Your task to perform on an android device: Search for seafood restaurants on Google Maps Image 0: 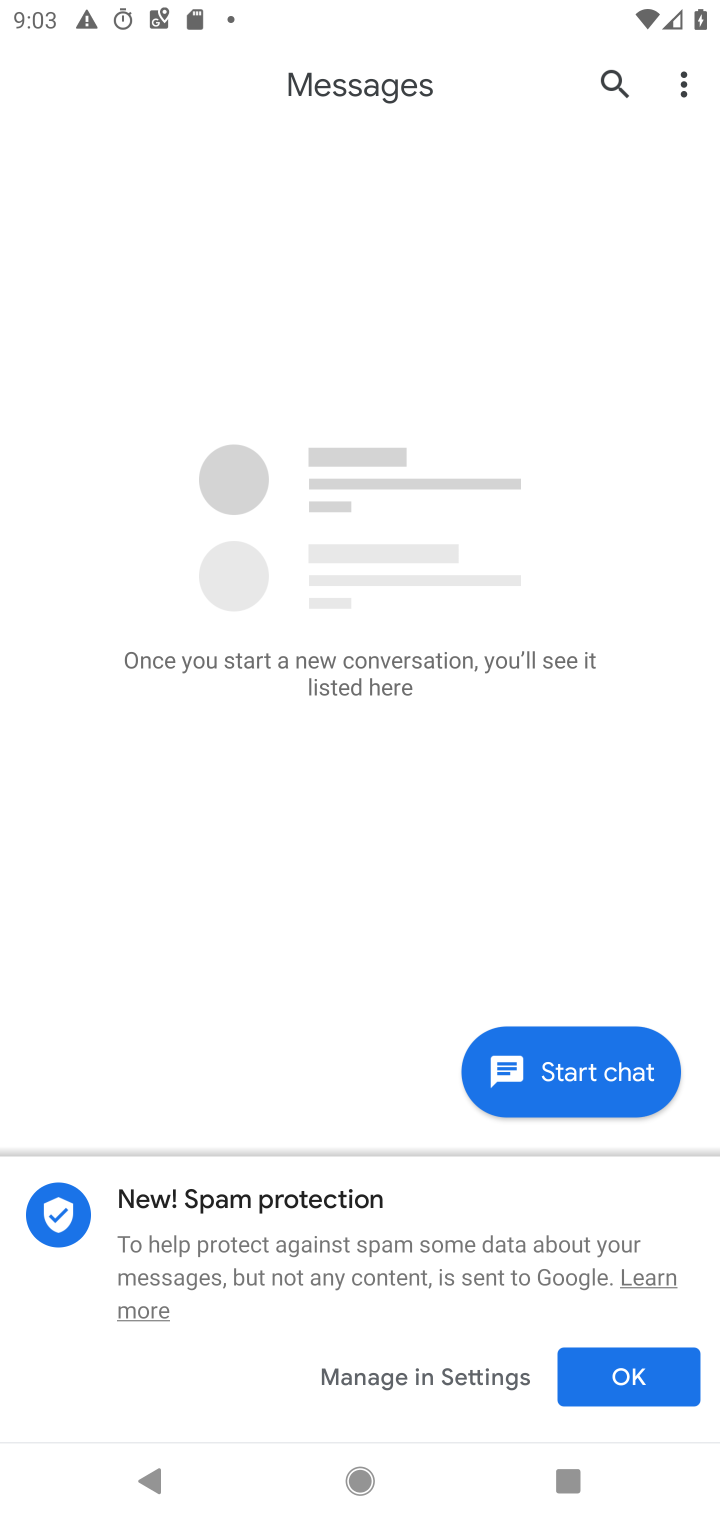
Step 0: press home button
Your task to perform on an android device: Search for seafood restaurants on Google Maps Image 1: 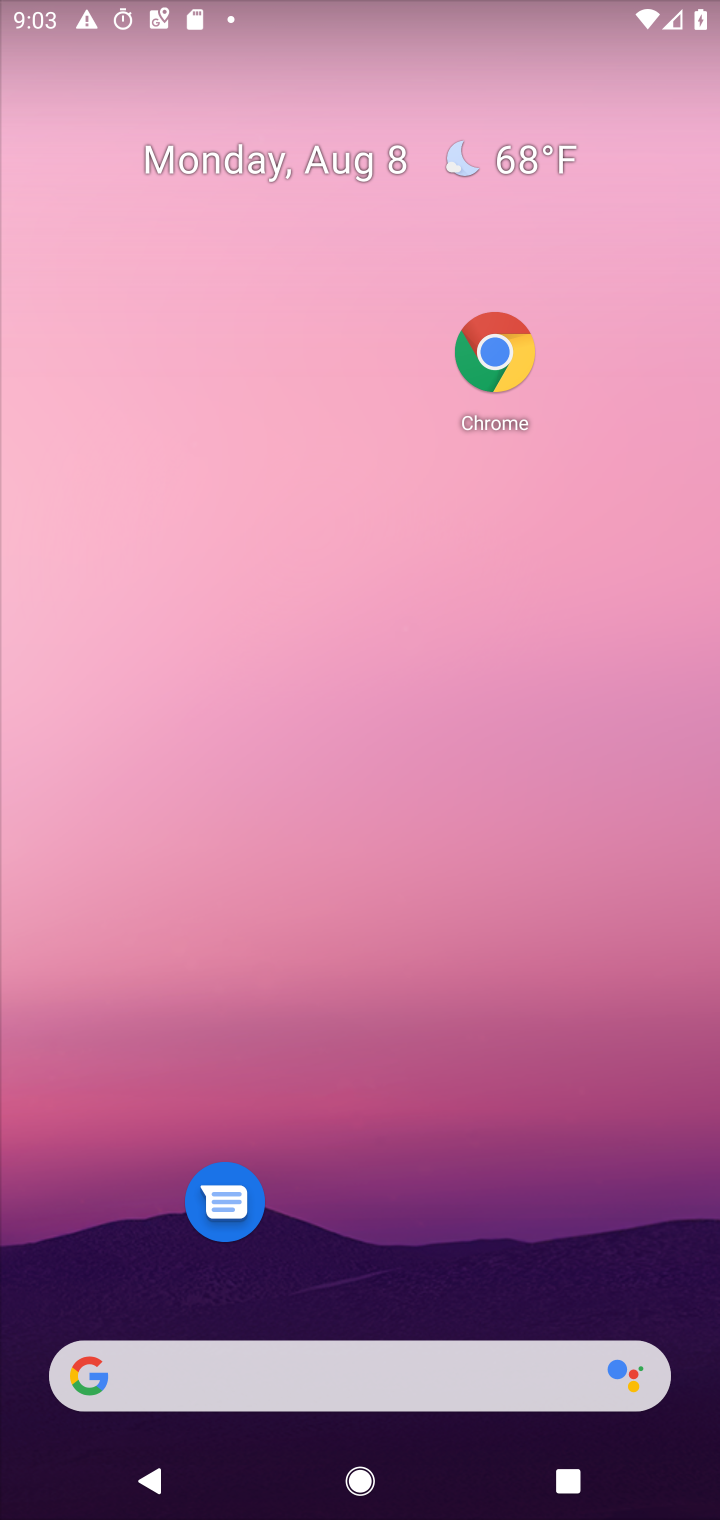
Step 1: drag from (365, 1235) to (670, 197)
Your task to perform on an android device: Search for seafood restaurants on Google Maps Image 2: 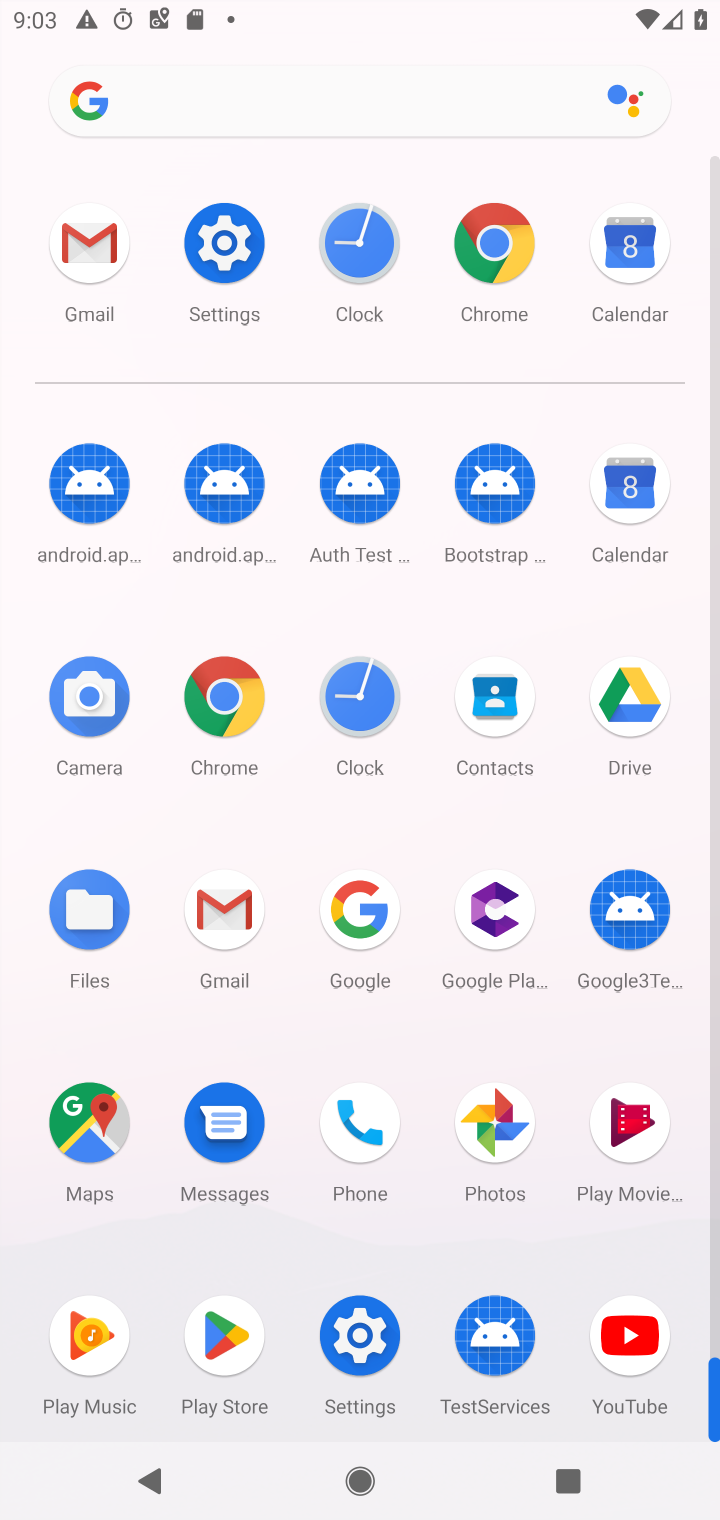
Step 2: click (112, 1076)
Your task to perform on an android device: Search for seafood restaurants on Google Maps Image 3: 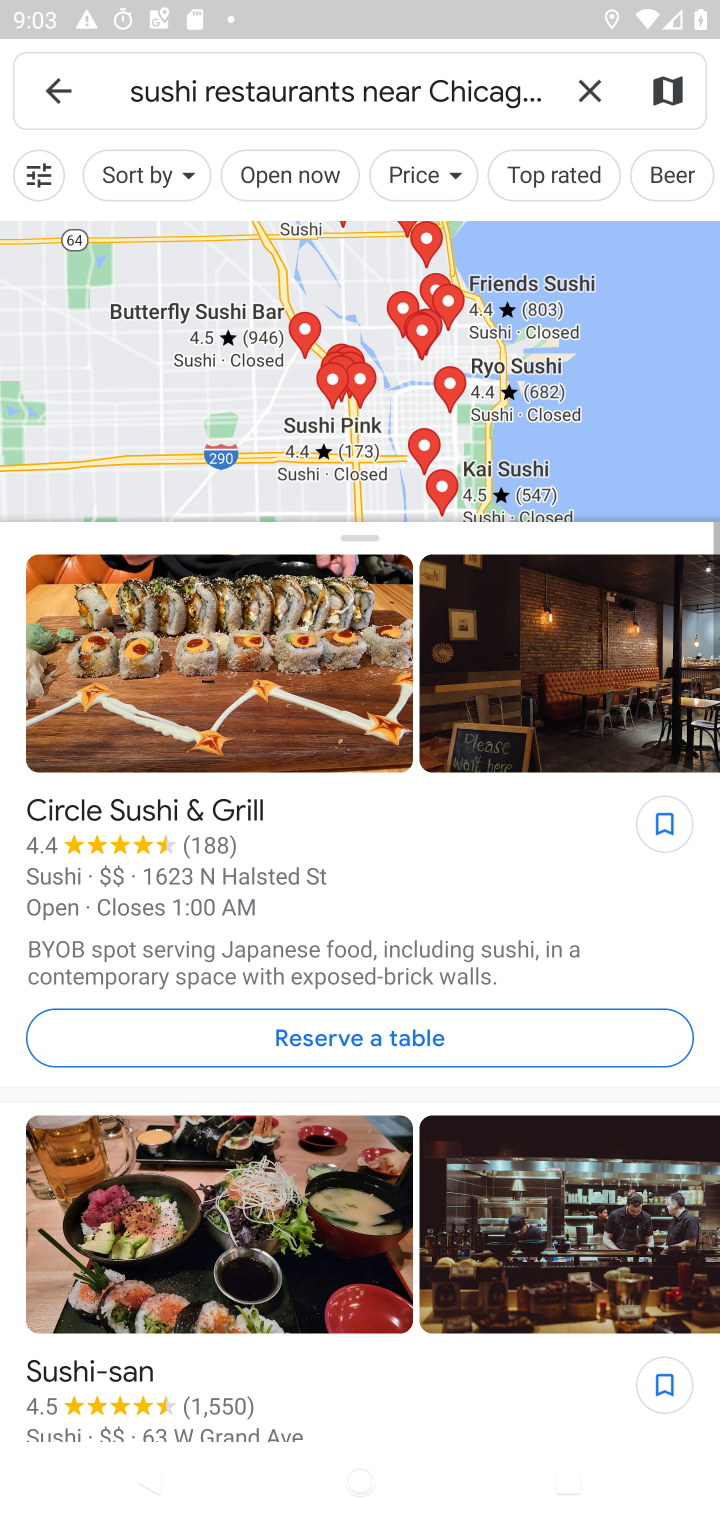
Step 3: click (587, 97)
Your task to perform on an android device: Search for seafood restaurants on Google Maps Image 4: 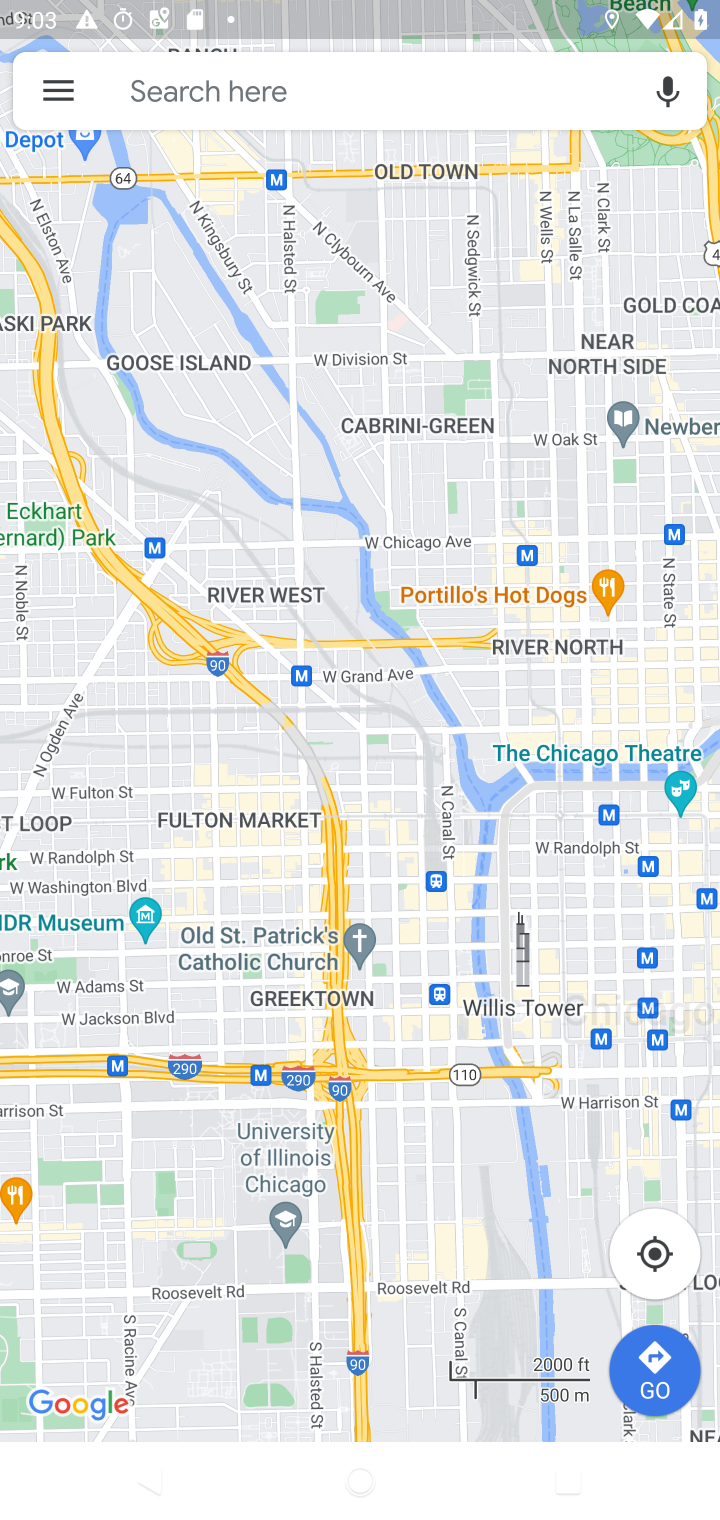
Step 4: click (414, 93)
Your task to perform on an android device: Search for seafood restaurants on Google Maps Image 5: 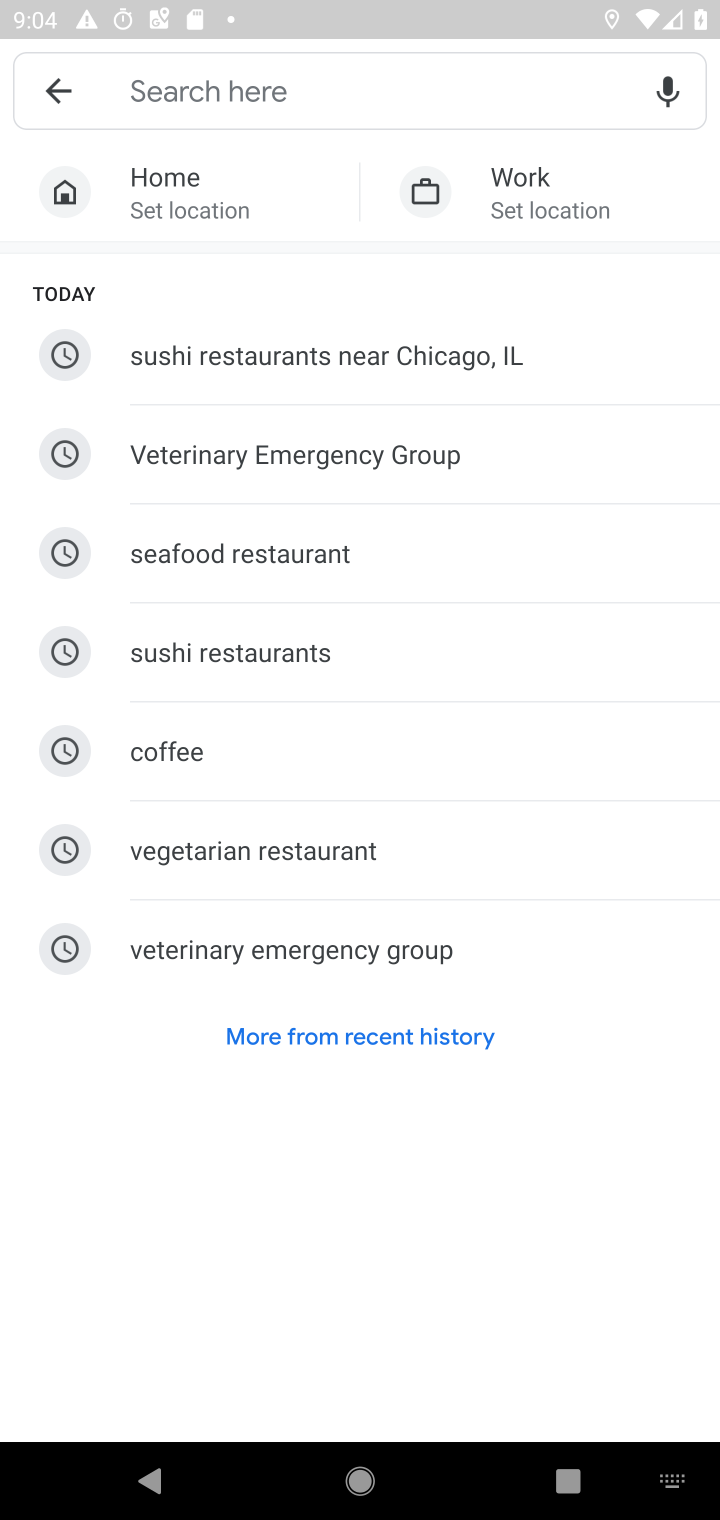
Step 5: click (215, 564)
Your task to perform on an android device: Search for seafood restaurants on Google Maps Image 6: 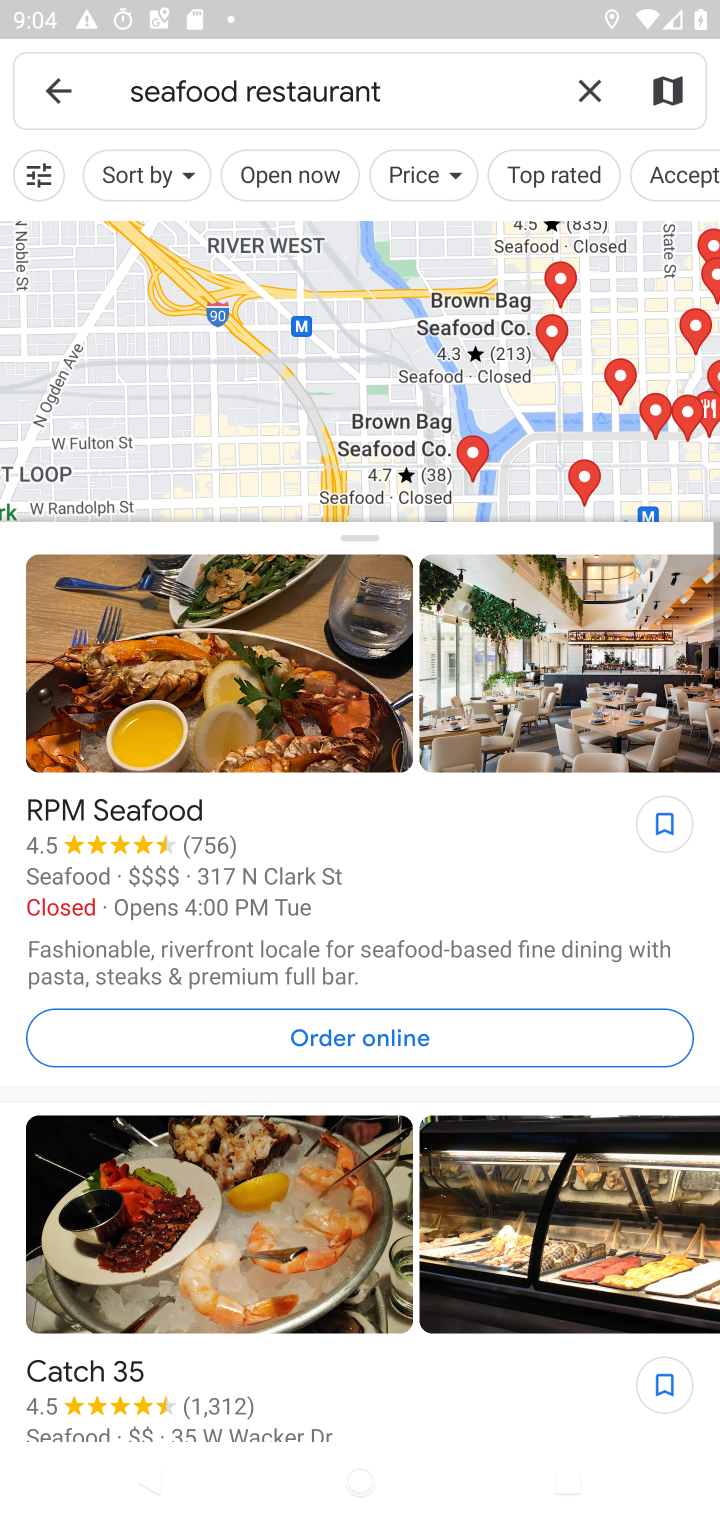
Step 6: task complete